Your task to perform on an android device: toggle notifications settings in the gmail app Image 0: 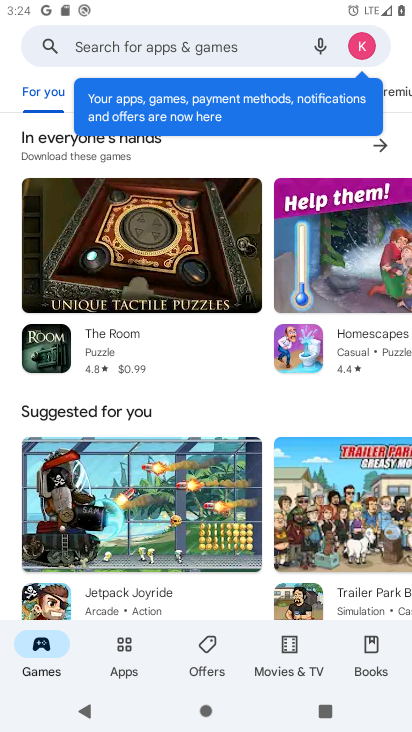
Step 0: press home button
Your task to perform on an android device: toggle notifications settings in the gmail app Image 1: 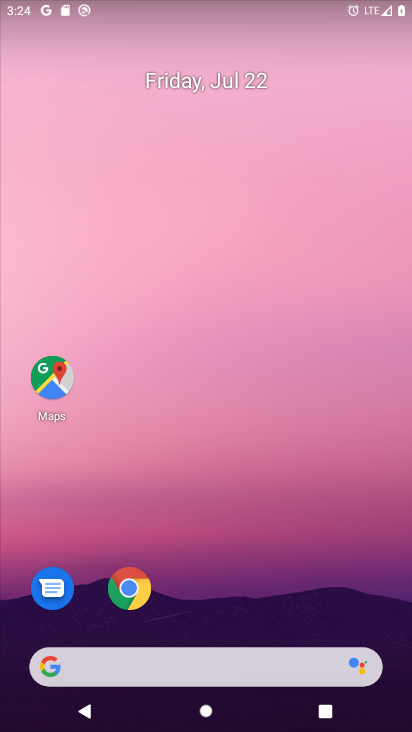
Step 1: drag from (208, 595) to (243, 93)
Your task to perform on an android device: toggle notifications settings in the gmail app Image 2: 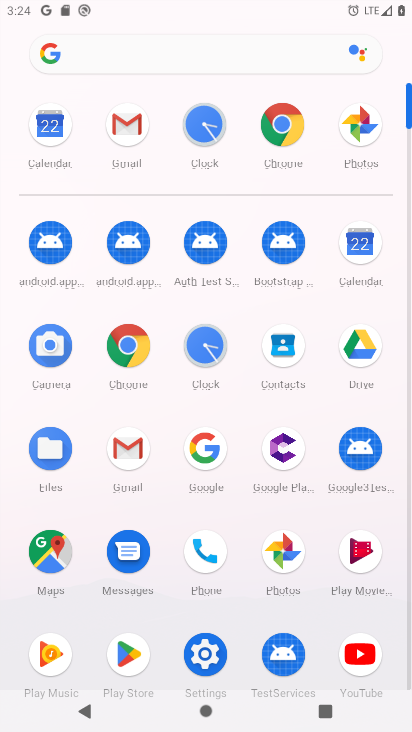
Step 2: click (128, 449)
Your task to perform on an android device: toggle notifications settings in the gmail app Image 3: 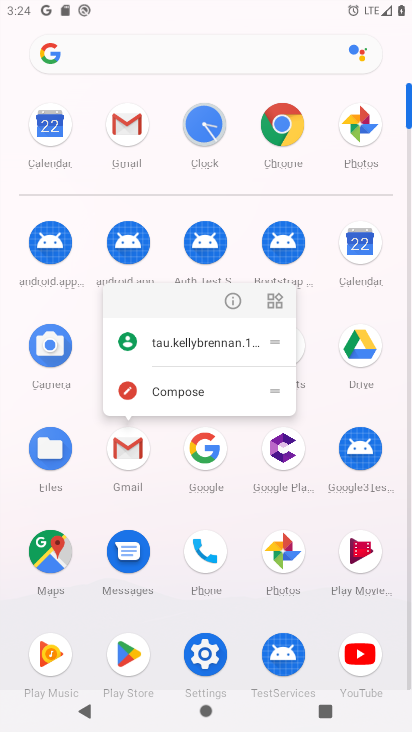
Step 3: click (232, 295)
Your task to perform on an android device: toggle notifications settings in the gmail app Image 4: 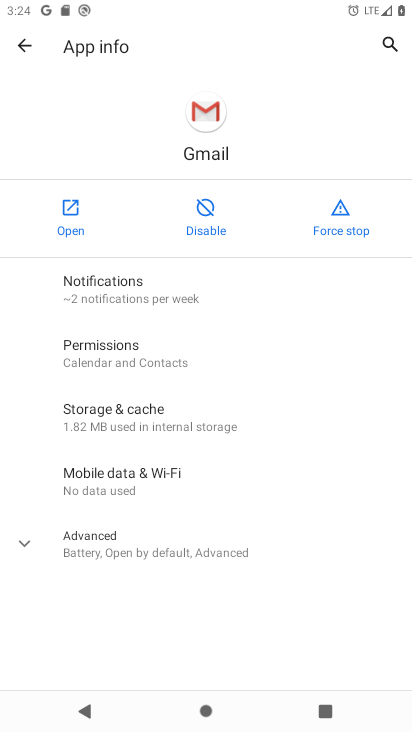
Step 4: click (148, 279)
Your task to perform on an android device: toggle notifications settings in the gmail app Image 5: 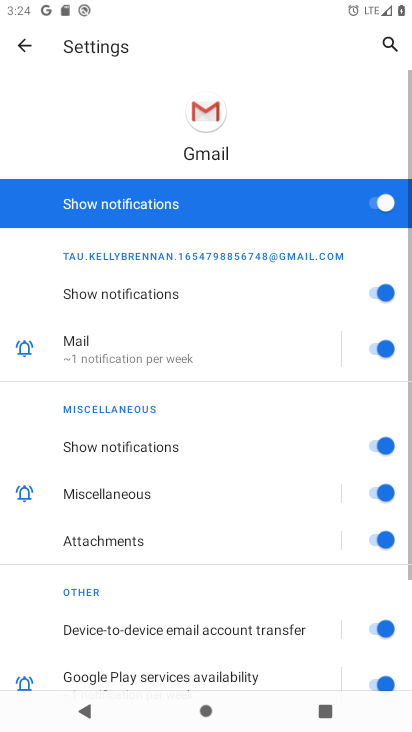
Step 5: click (248, 198)
Your task to perform on an android device: toggle notifications settings in the gmail app Image 6: 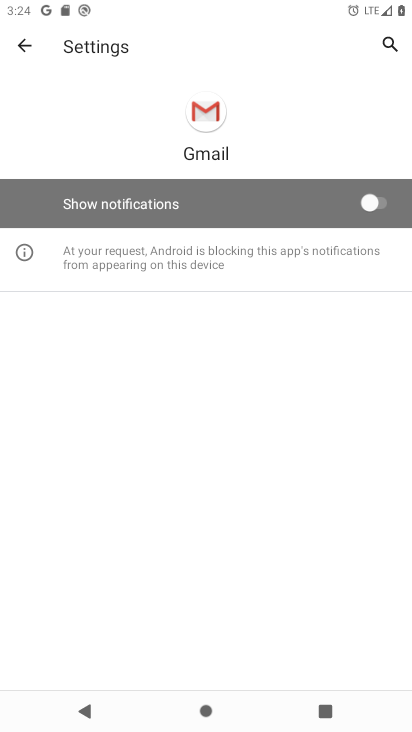
Step 6: task complete